Your task to perform on an android device: View the shopping cart on newegg. Image 0: 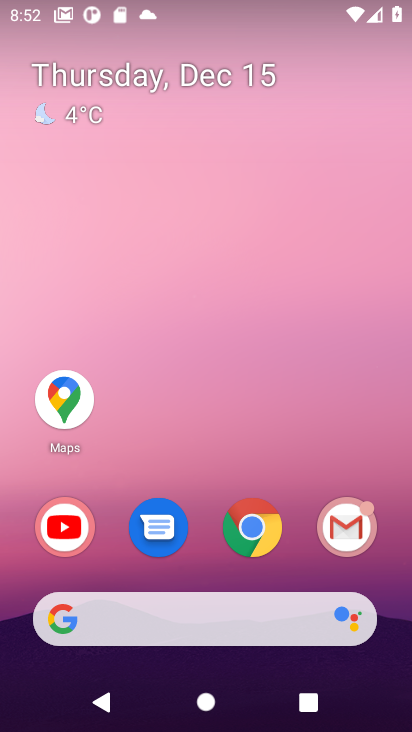
Step 0: click (265, 534)
Your task to perform on an android device: View the shopping cart on newegg. Image 1: 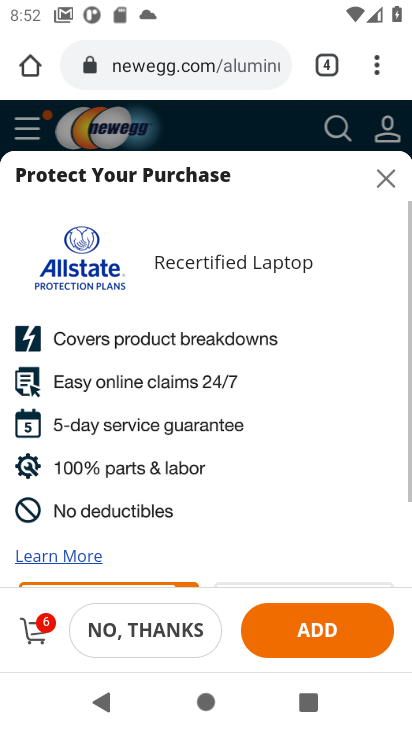
Step 1: task complete